Your task to perform on an android device: see tabs open on other devices in the chrome app Image 0: 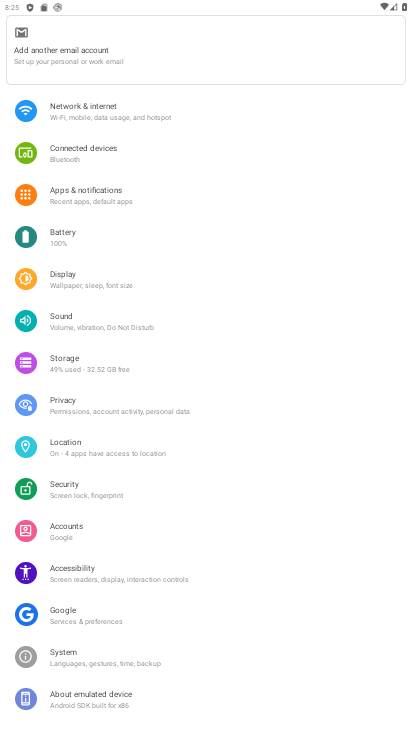
Step 0: press home button
Your task to perform on an android device: see tabs open on other devices in the chrome app Image 1: 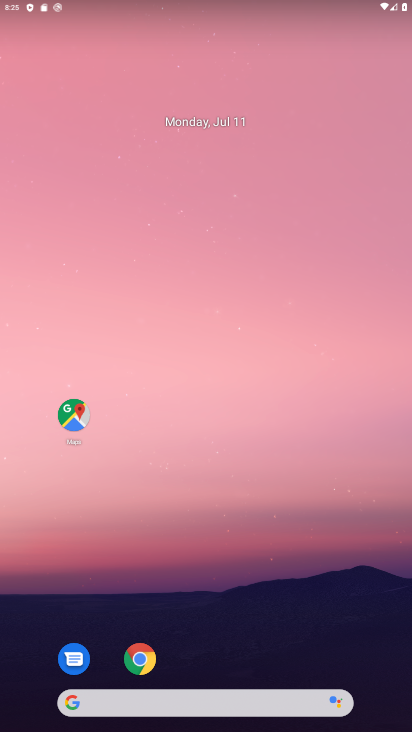
Step 1: click (145, 657)
Your task to perform on an android device: see tabs open on other devices in the chrome app Image 2: 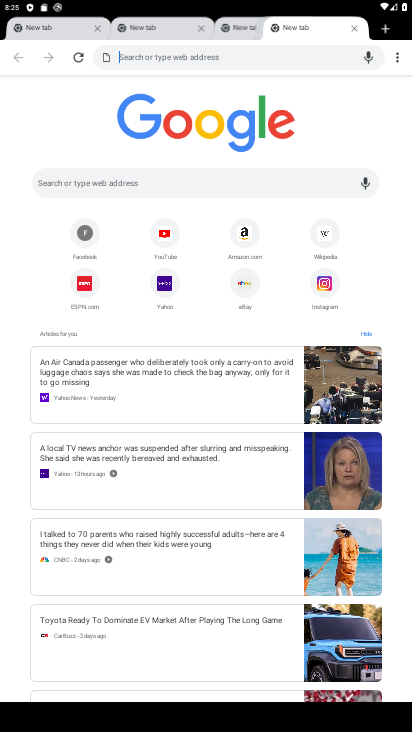
Step 2: task complete